Your task to perform on an android device: View the shopping cart on bestbuy.com. Add jbl flip 4 to the cart on bestbuy.com Image 0: 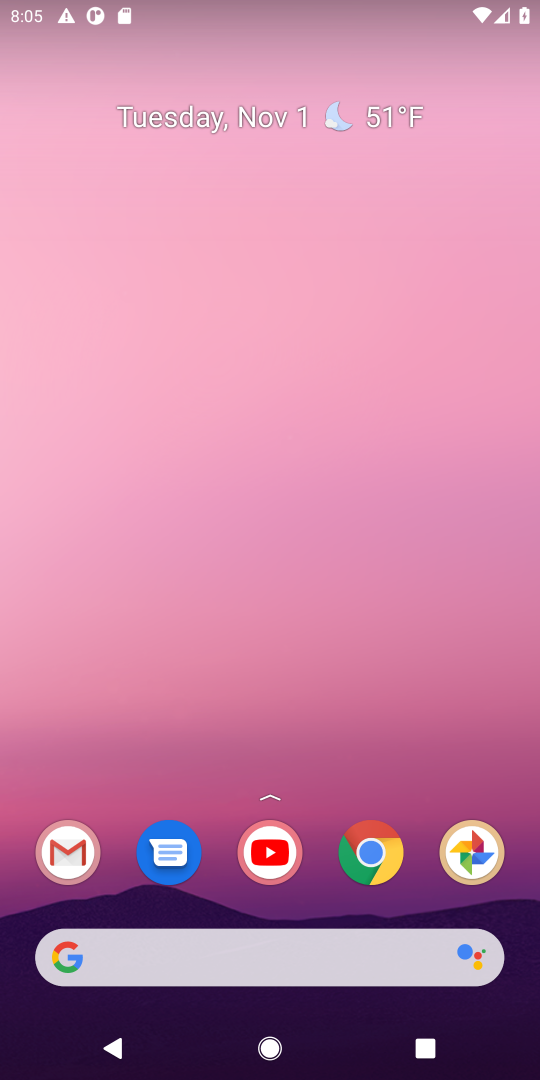
Step 0: drag from (341, 938) to (442, 27)
Your task to perform on an android device: View the shopping cart on bestbuy.com. Add jbl flip 4 to the cart on bestbuy.com Image 1: 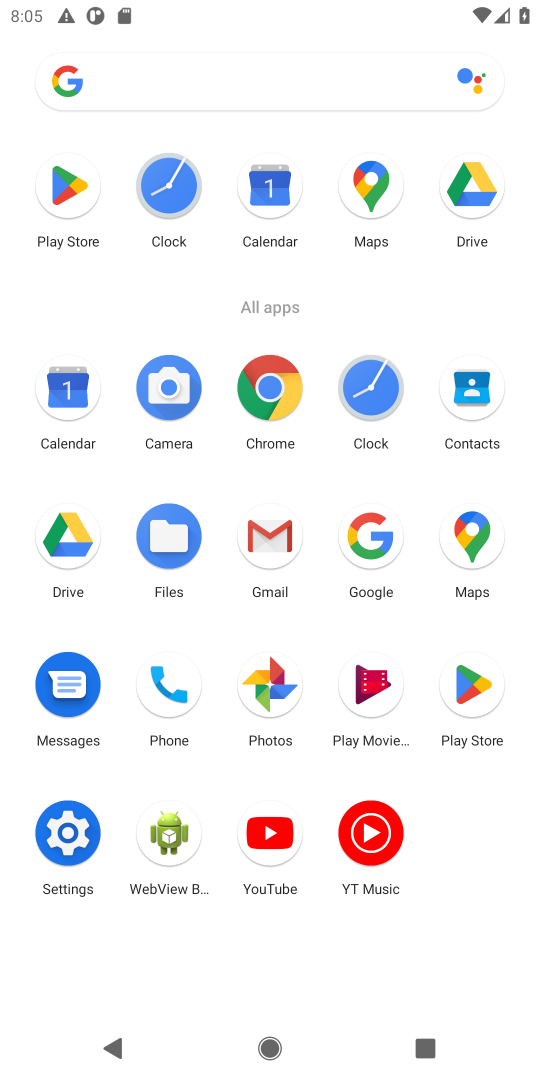
Step 1: click (377, 575)
Your task to perform on an android device: View the shopping cart on bestbuy.com. Add jbl flip 4 to the cart on bestbuy.com Image 2: 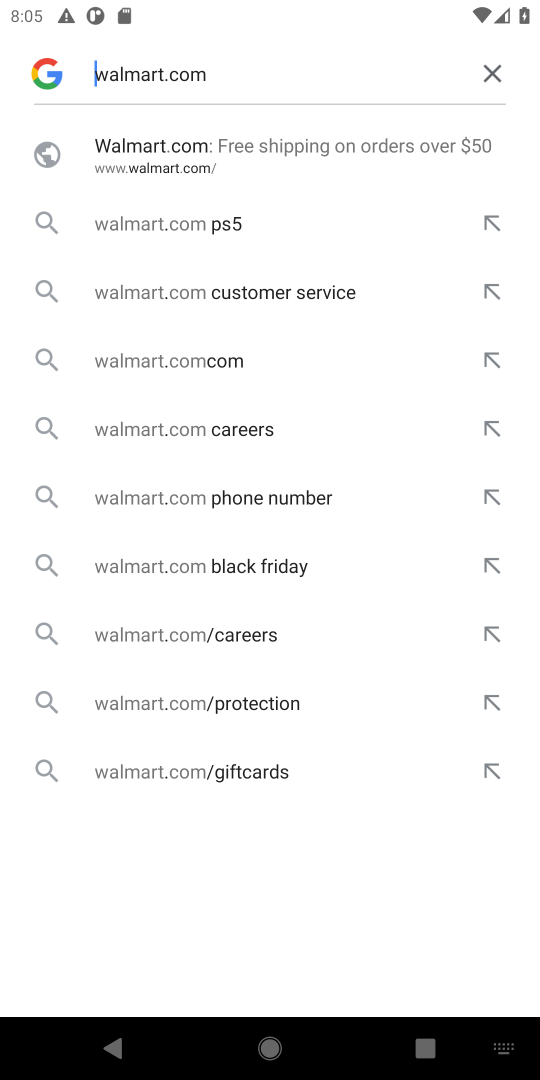
Step 2: click (495, 73)
Your task to perform on an android device: View the shopping cart on bestbuy.com. Add jbl flip 4 to the cart on bestbuy.com Image 3: 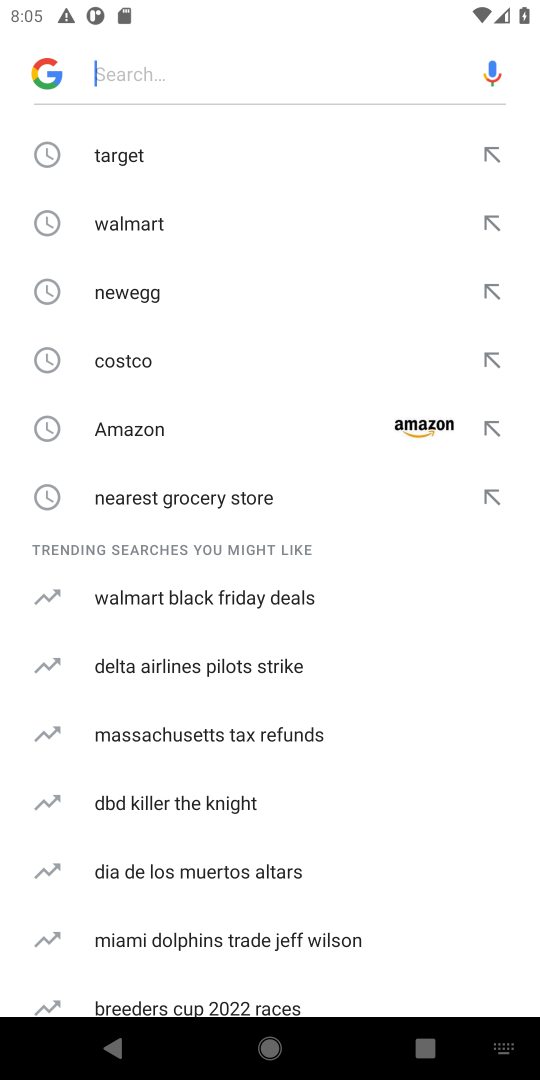
Step 3: type "bestbuy.com"
Your task to perform on an android device: View the shopping cart on bestbuy.com. Add jbl flip 4 to the cart on bestbuy.com Image 4: 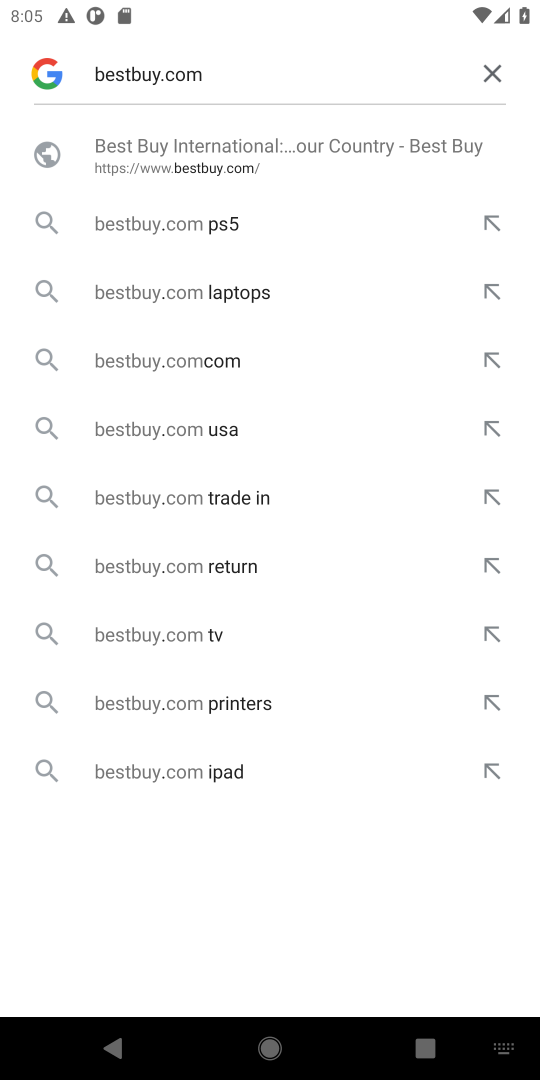
Step 4: click (238, 163)
Your task to perform on an android device: View the shopping cart on bestbuy.com. Add jbl flip 4 to the cart on bestbuy.com Image 5: 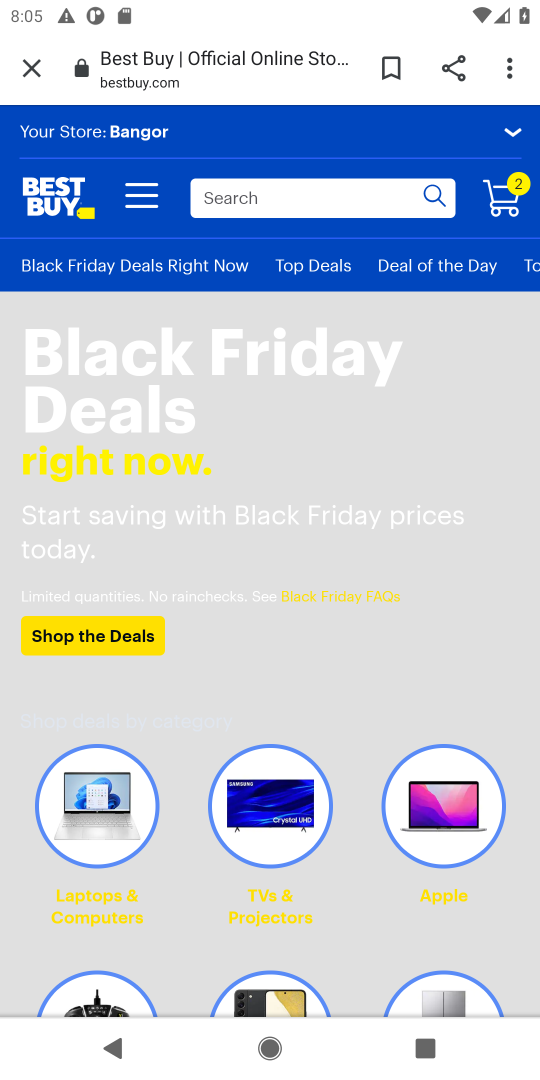
Step 5: click (297, 201)
Your task to perform on an android device: View the shopping cart on bestbuy.com. Add jbl flip 4 to the cart on bestbuy.com Image 6: 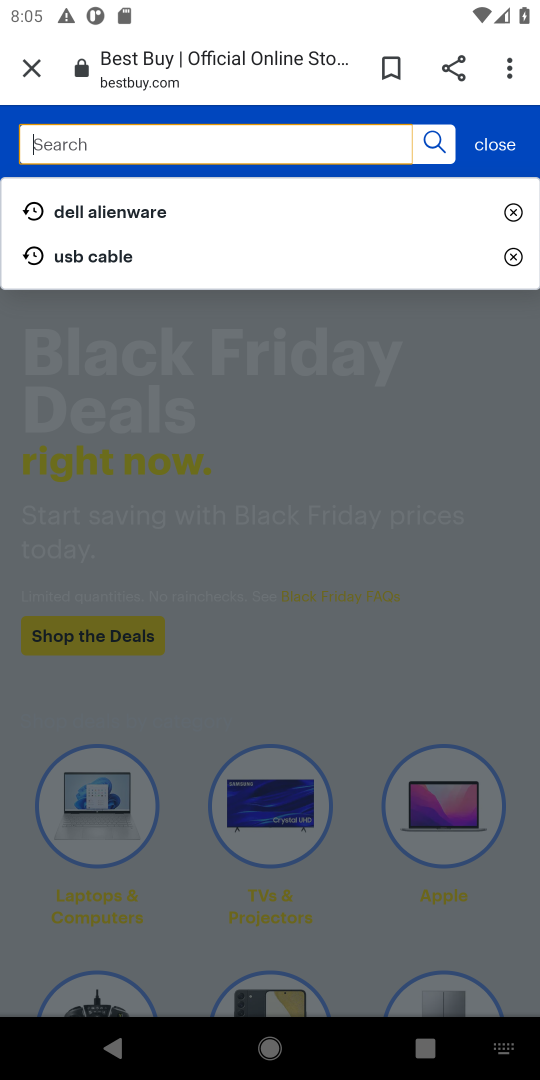
Step 6: type "jbl flip 4"
Your task to perform on an android device: View the shopping cart on bestbuy.com. Add jbl flip 4 to the cart on bestbuy.com Image 7: 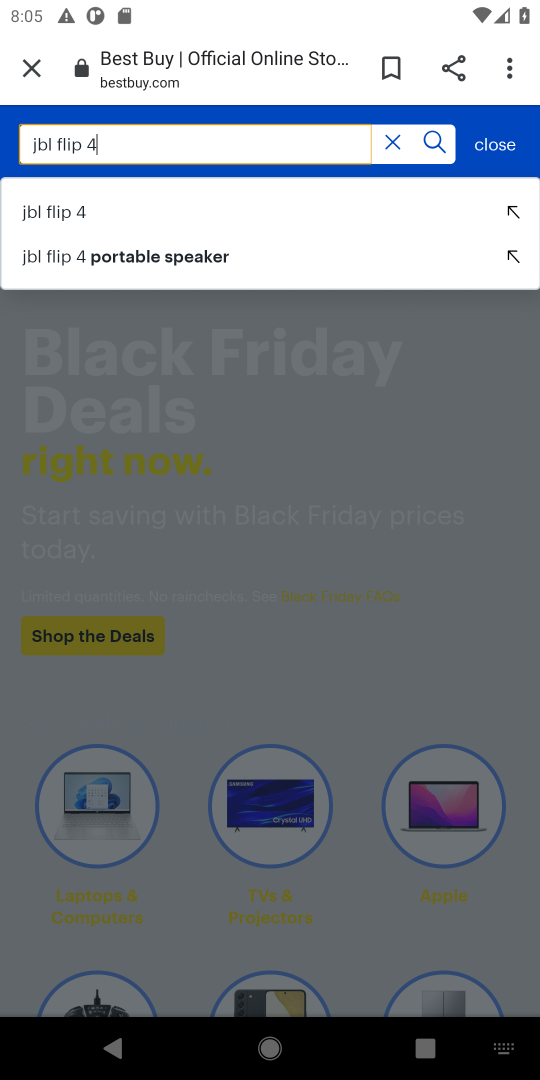
Step 7: click (154, 209)
Your task to perform on an android device: View the shopping cart on bestbuy.com. Add jbl flip 4 to the cart on bestbuy.com Image 8: 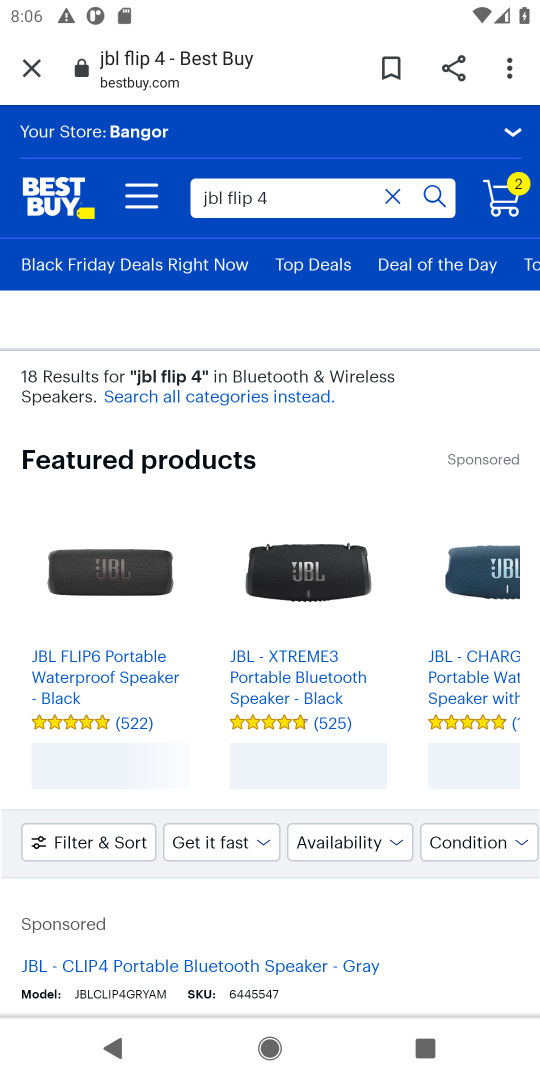
Step 8: task complete